Your task to perform on an android device: Open Chrome and go to settings Image 0: 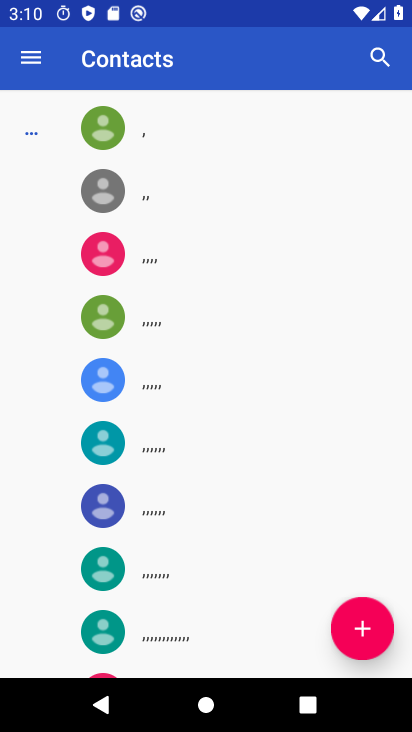
Step 0: press home button
Your task to perform on an android device: Open Chrome and go to settings Image 1: 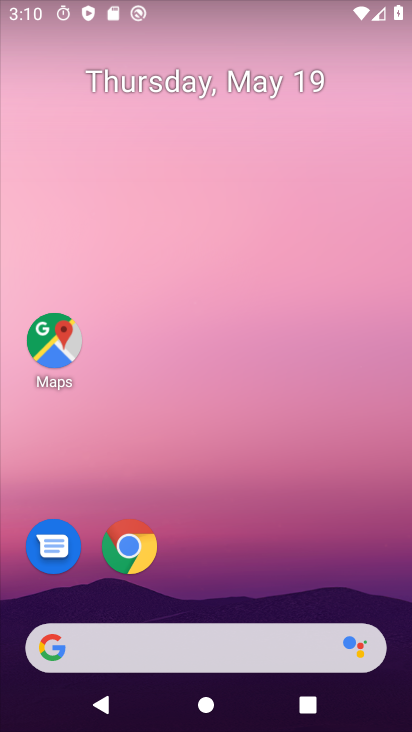
Step 1: drag from (232, 599) to (247, 65)
Your task to perform on an android device: Open Chrome and go to settings Image 2: 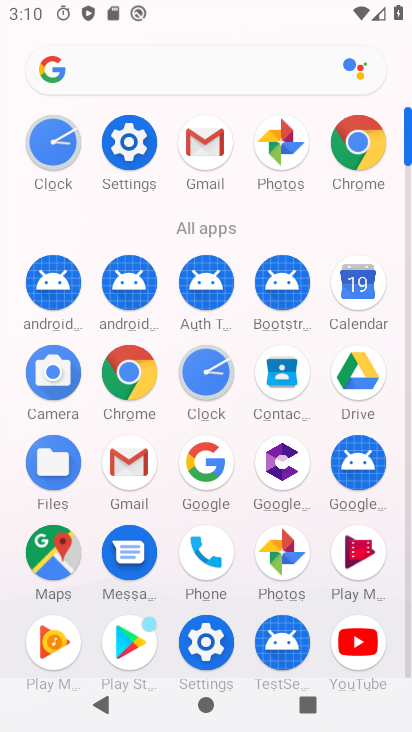
Step 2: click (124, 372)
Your task to perform on an android device: Open Chrome and go to settings Image 3: 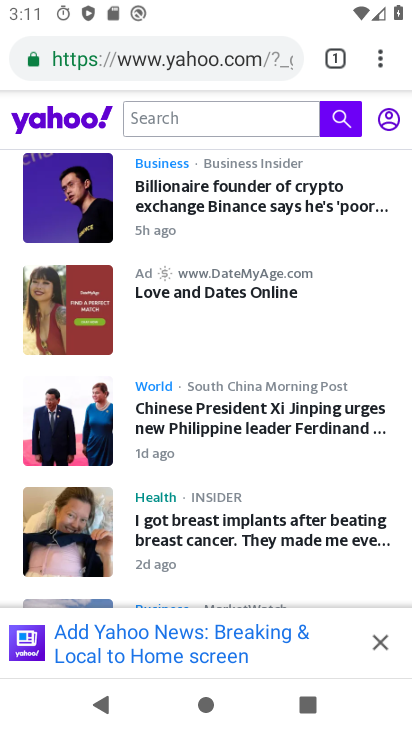
Step 3: click (383, 59)
Your task to perform on an android device: Open Chrome and go to settings Image 4: 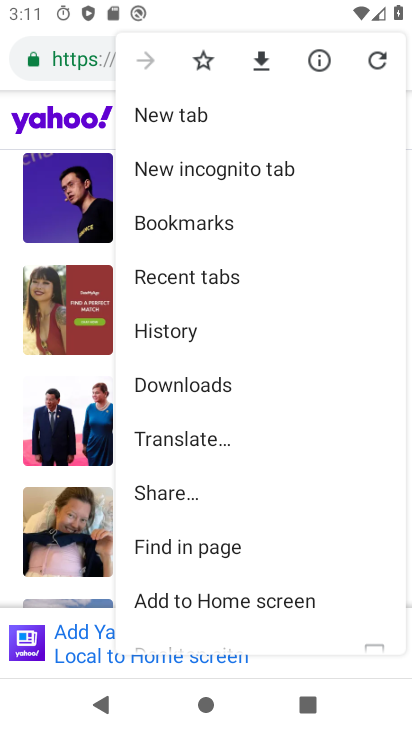
Step 4: drag from (204, 510) to (223, 162)
Your task to perform on an android device: Open Chrome and go to settings Image 5: 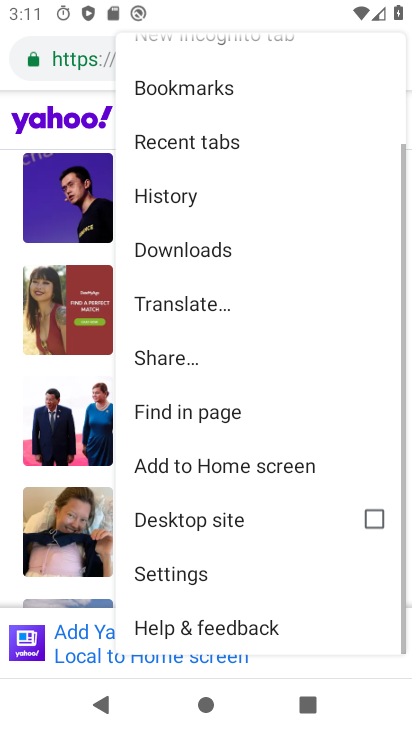
Step 5: click (215, 572)
Your task to perform on an android device: Open Chrome and go to settings Image 6: 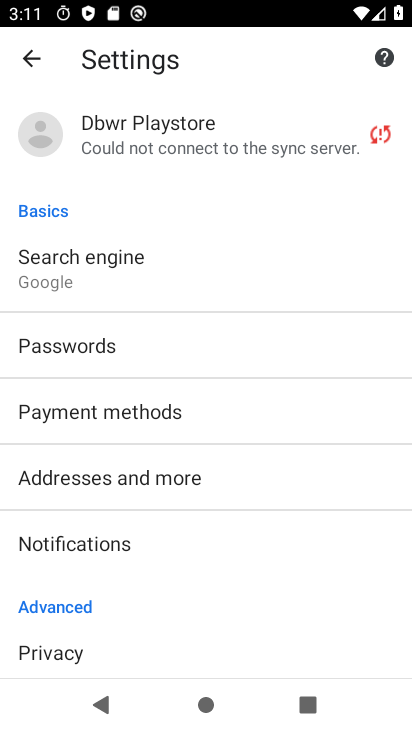
Step 6: task complete